Your task to perform on an android device: check the backup settings in the google photos Image 0: 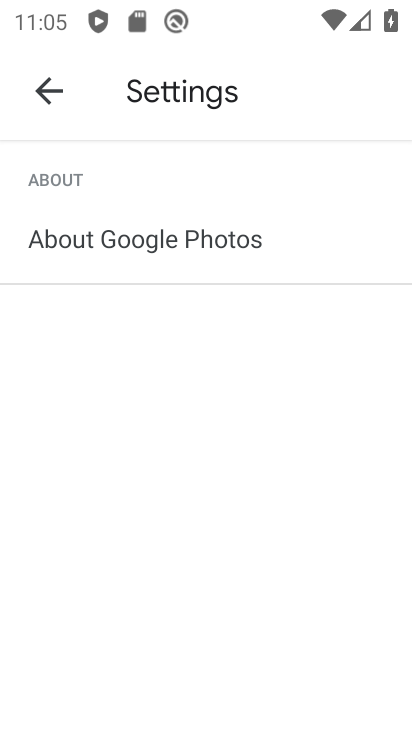
Step 0: press back button
Your task to perform on an android device: check the backup settings in the google photos Image 1: 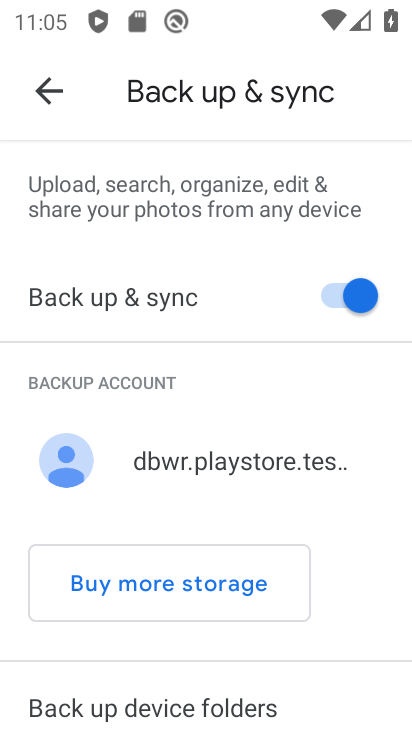
Step 1: press back button
Your task to perform on an android device: check the backup settings in the google photos Image 2: 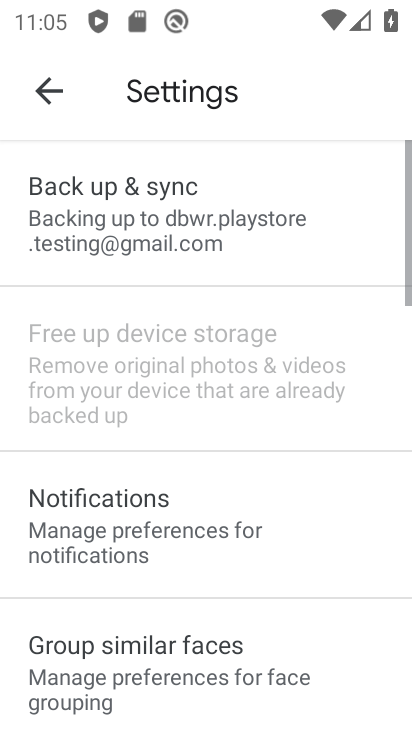
Step 2: press back button
Your task to perform on an android device: check the backup settings in the google photos Image 3: 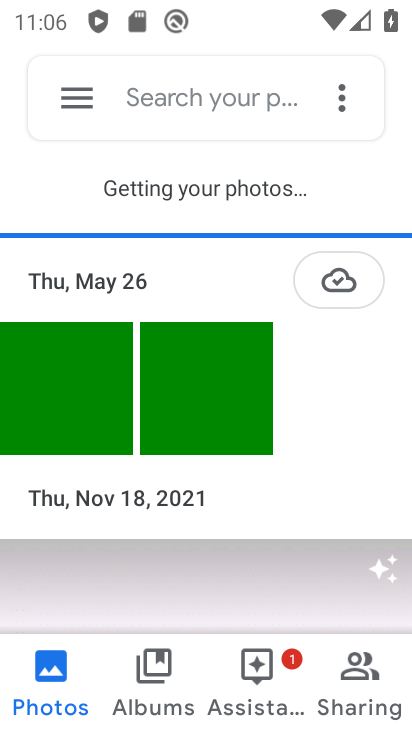
Step 3: press back button
Your task to perform on an android device: check the backup settings in the google photos Image 4: 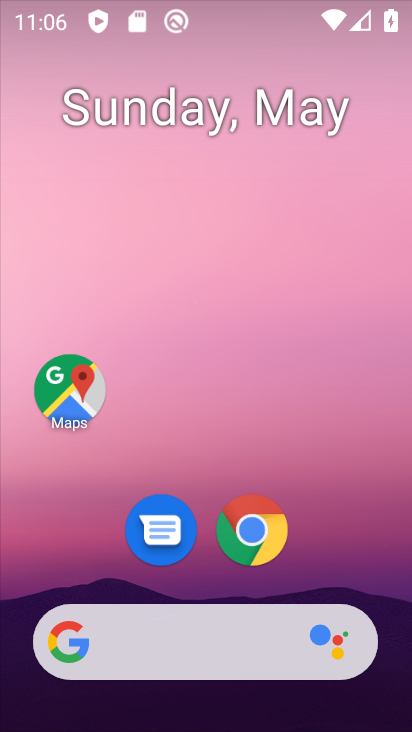
Step 4: drag from (294, 329) to (304, 0)
Your task to perform on an android device: check the backup settings in the google photos Image 5: 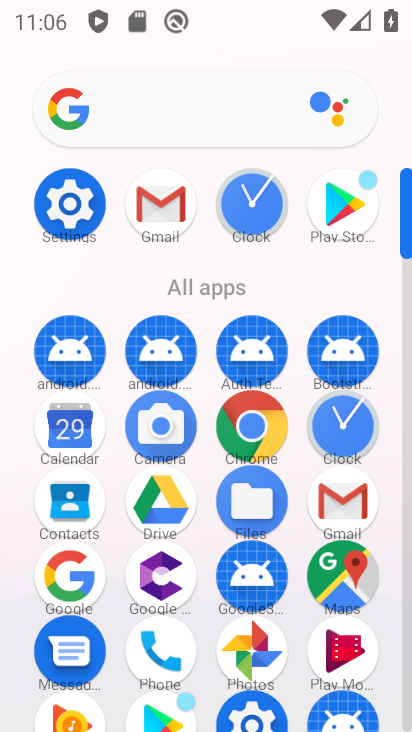
Step 5: click (251, 636)
Your task to perform on an android device: check the backup settings in the google photos Image 6: 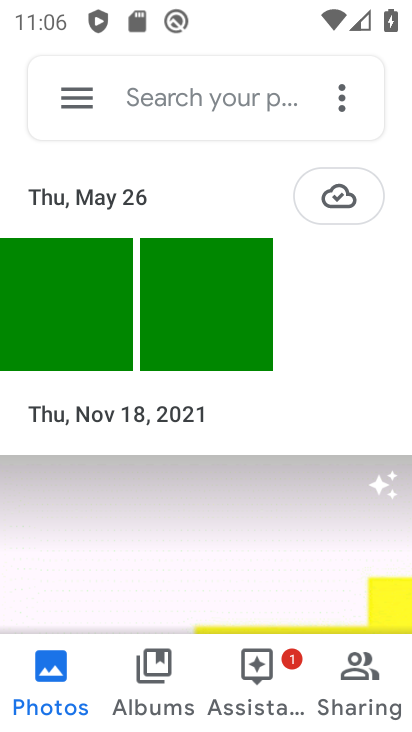
Step 6: click (67, 94)
Your task to perform on an android device: check the backup settings in the google photos Image 7: 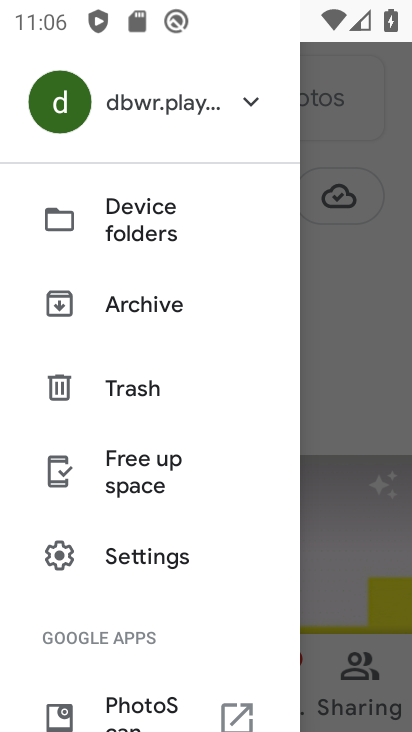
Step 7: click (144, 555)
Your task to perform on an android device: check the backup settings in the google photos Image 8: 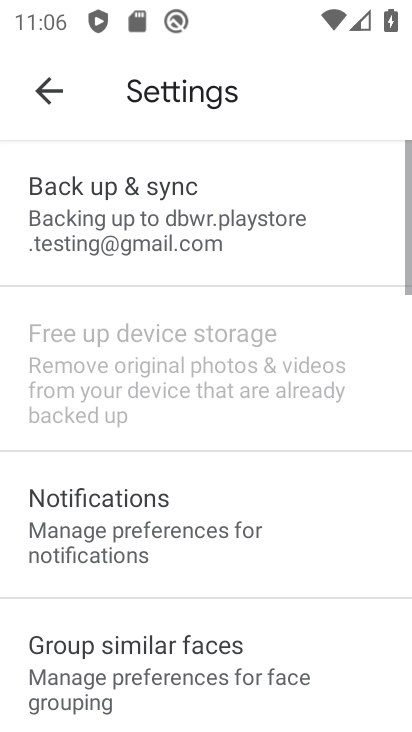
Step 8: click (135, 222)
Your task to perform on an android device: check the backup settings in the google photos Image 9: 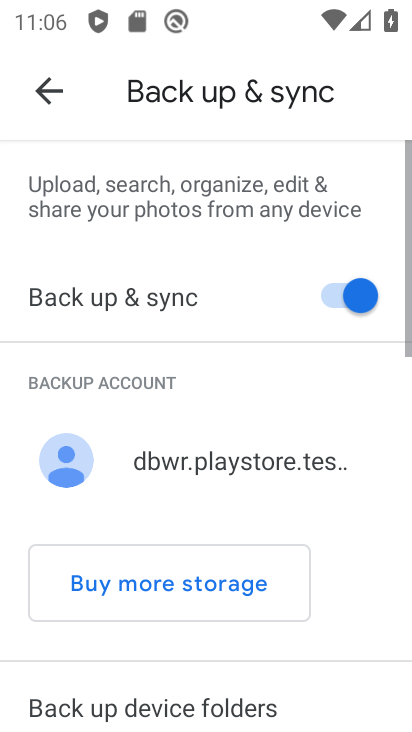
Step 9: task complete